Your task to perform on an android device: turn on showing notifications on the lock screen Image 0: 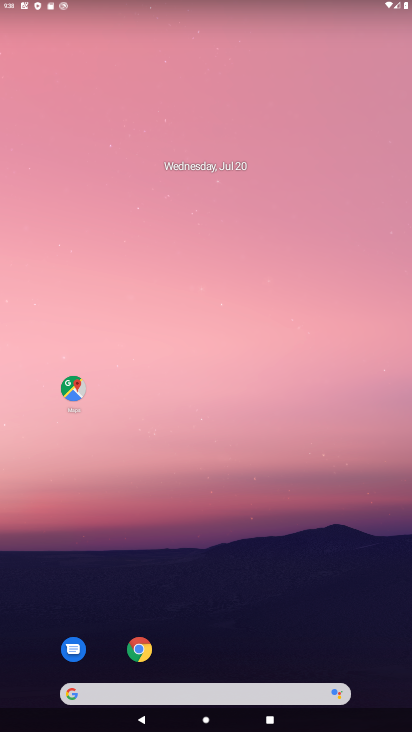
Step 0: drag from (285, 663) to (273, 226)
Your task to perform on an android device: turn on showing notifications on the lock screen Image 1: 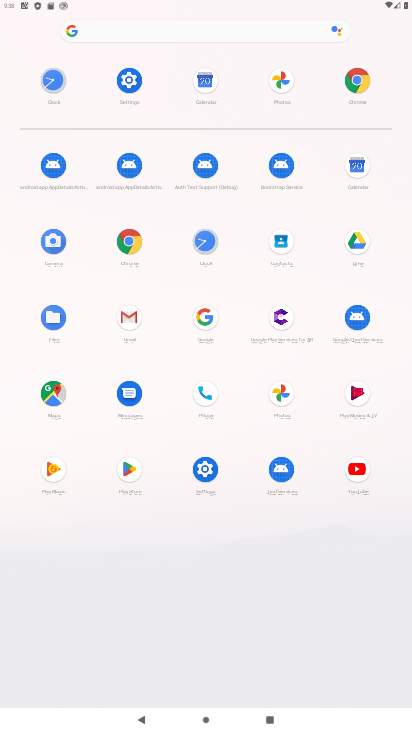
Step 1: click (137, 80)
Your task to perform on an android device: turn on showing notifications on the lock screen Image 2: 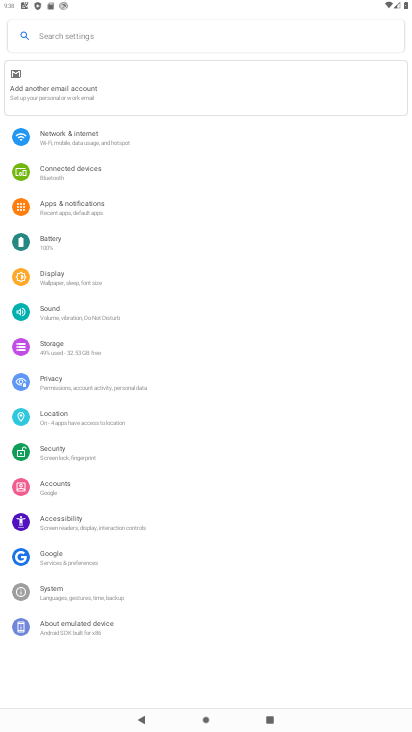
Step 2: click (117, 220)
Your task to perform on an android device: turn on showing notifications on the lock screen Image 3: 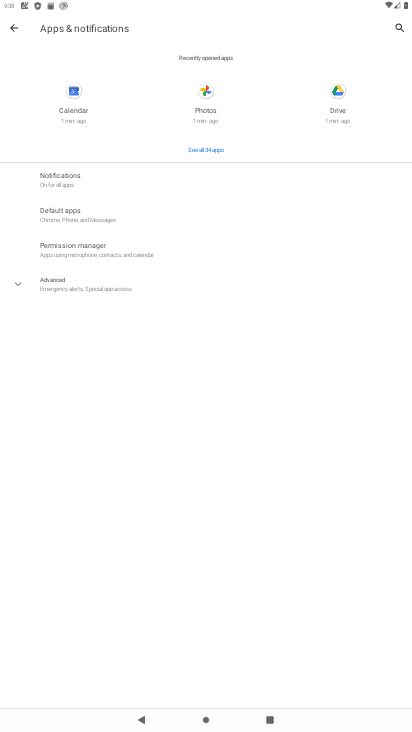
Step 3: click (119, 183)
Your task to perform on an android device: turn on showing notifications on the lock screen Image 4: 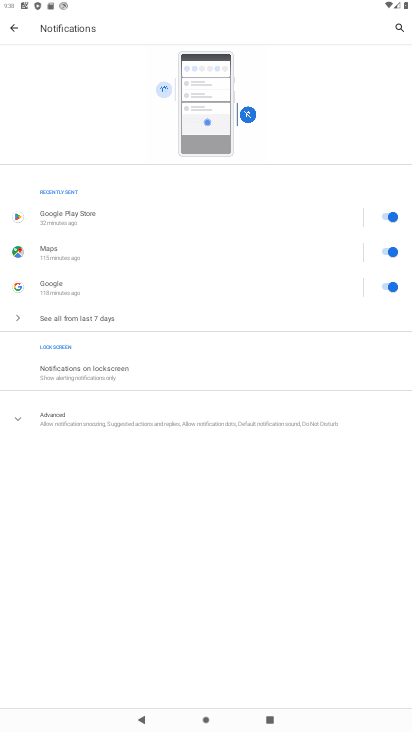
Step 4: click (189, 382)
Your task to perform on an android device: turn on showing notifications on the lock screen Image 5: 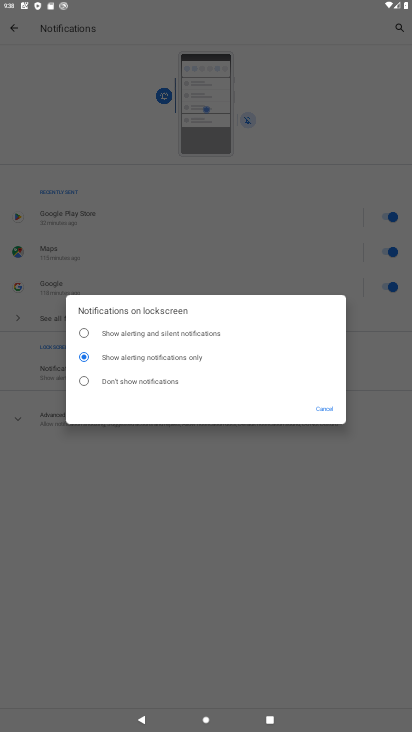
Step 5: click (156, 337)
Your task to perform on an android device: turn on showing notifications on the lock screen Image 6: 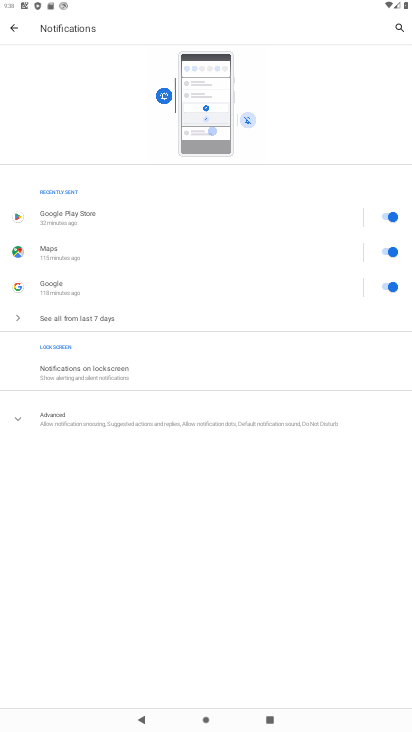
Step 6: task complete